Your task to perform on an android device: Go to Yahoo.com Image 0: 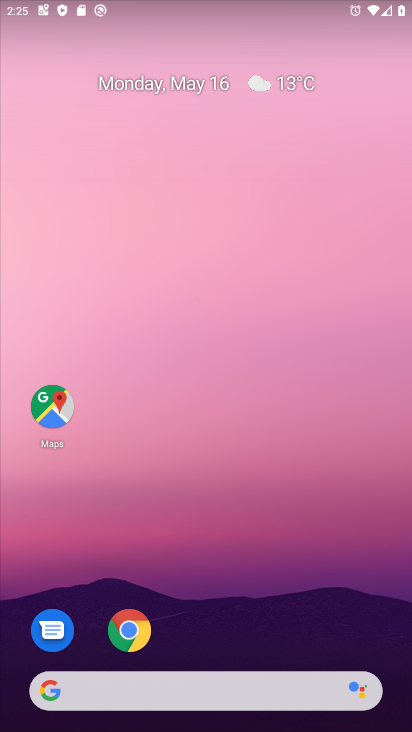
Step 0: click (131, 632)
Your task to perform on an android device: Go to Yahoo.com Image 1: 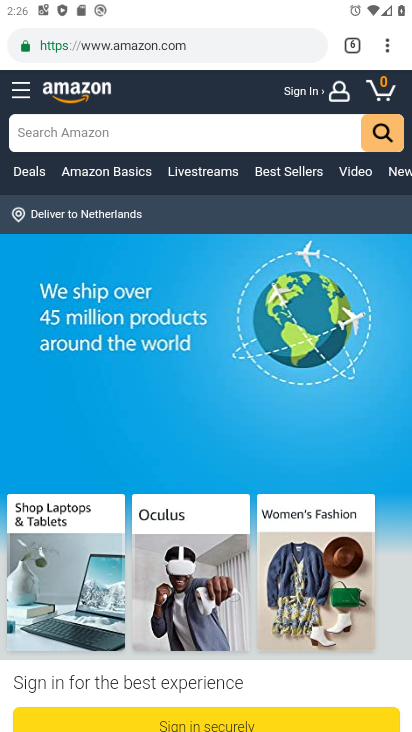
Step 1: click (391, 45)
Your task to perform on an android device: Go to Yahoo.com Image 2: 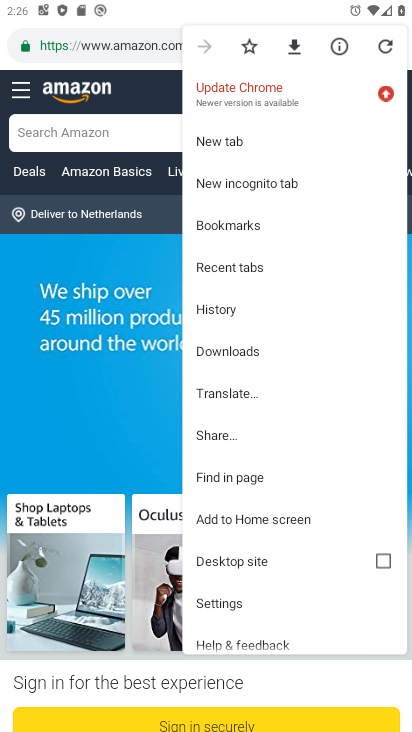
Step 2: click (211, 139)
Your task to perform on an android device: Go to Yahoo.com Image 3: 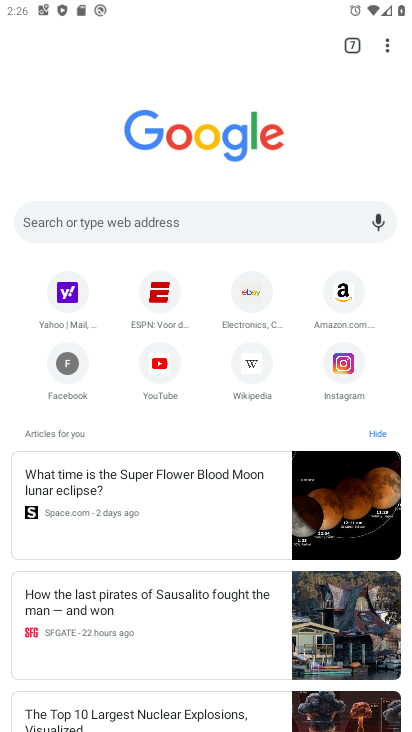
Step 3: click (66, 299)
Your task to perform on an android device: Go to Yahoo.com Image 4: 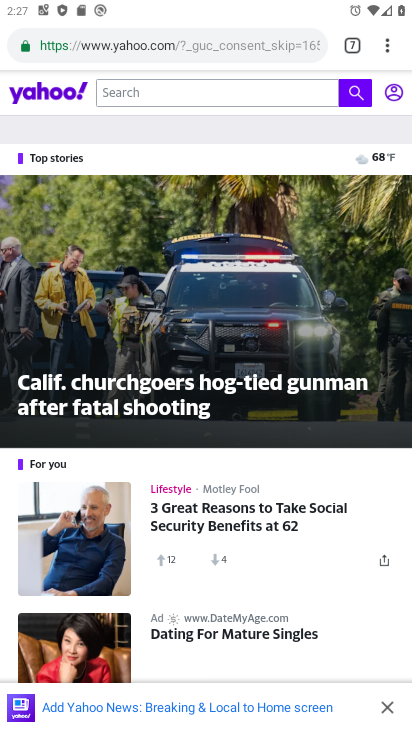
Step 4: task complete